Your task to perform on an android device: Open Wikipedia Image 0: 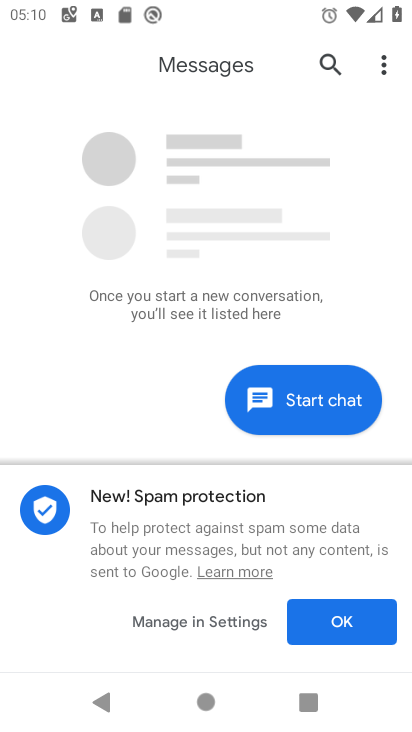
Step 0: press home button
Your task to perform on an android device: Open Wikipedia Image 1: 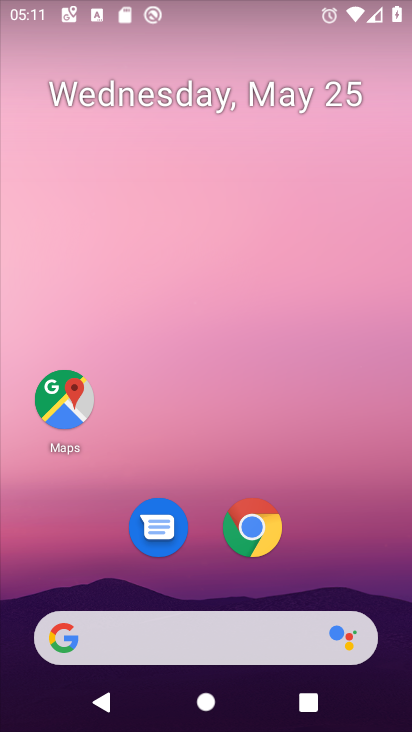
Step 1: drag from (206, 517) to (200, 46)
Your task to perform on an android device: Open Wikipedia Image 2: 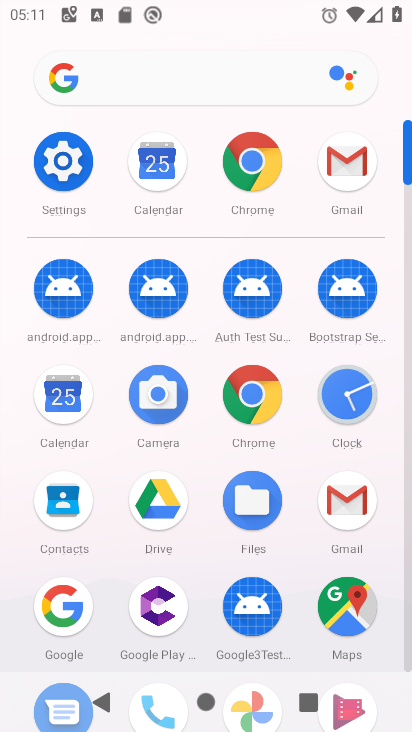
Step 2: click (268, 157)
Your task to perform on an android device: Open Wikipedia Image 3: 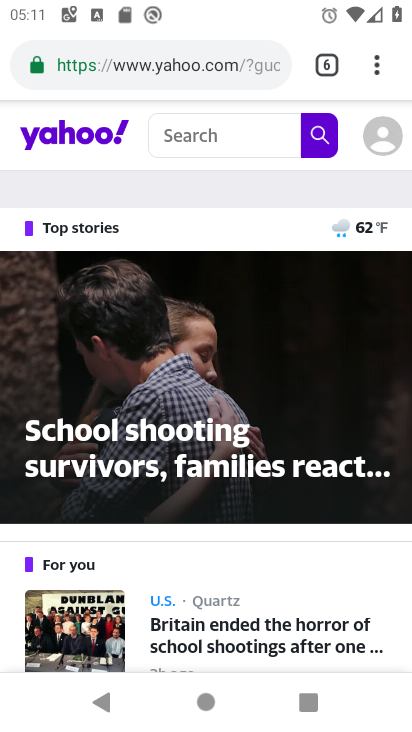
Step 3: click (260, 67)
Your task to perform on an android device: Open Wikipedia Image 4: 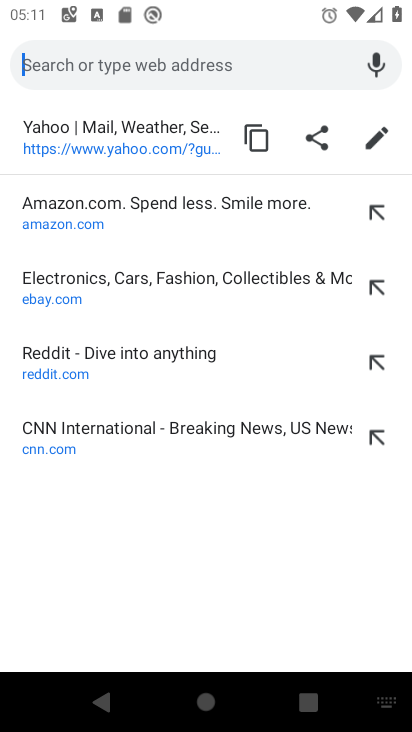
Step 4: type "wikipedia"
Your task to perform on an android device: Open Wikipedia Image 5: 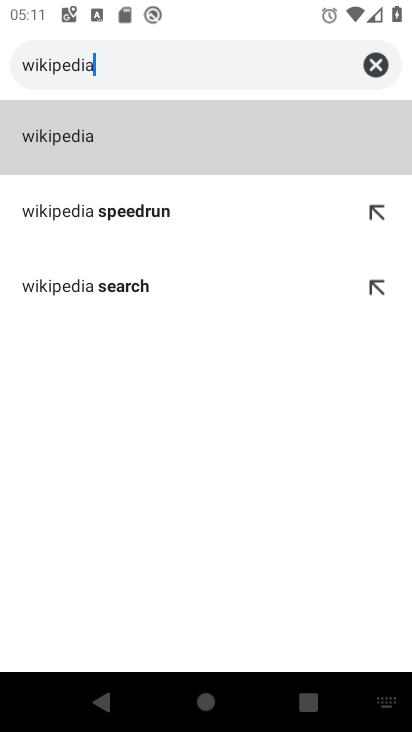
Step 5: click (130, 130)
Your task to perform on an android device: Open Wikipedia Image 6: 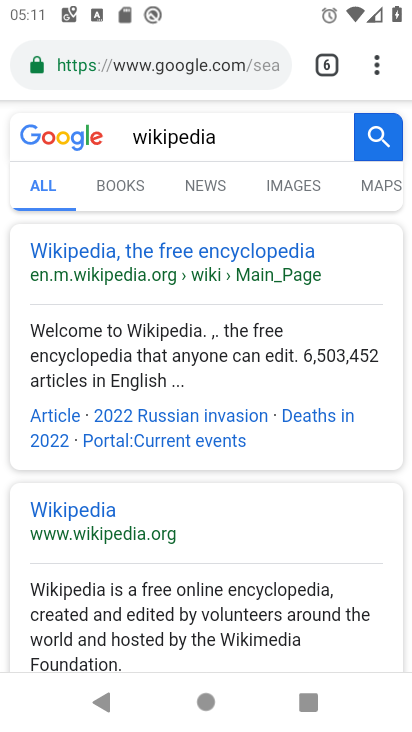
Step 6: click (61, 514)
Your task to perform on an android device: Open Wikipedia Image 7: 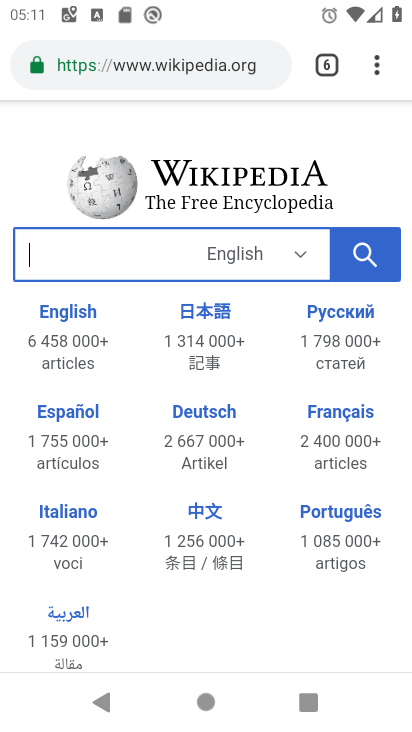
Step 7: task complete